Your task to perform on an android device: allow notifications from all sites in the chrome app Image 0: 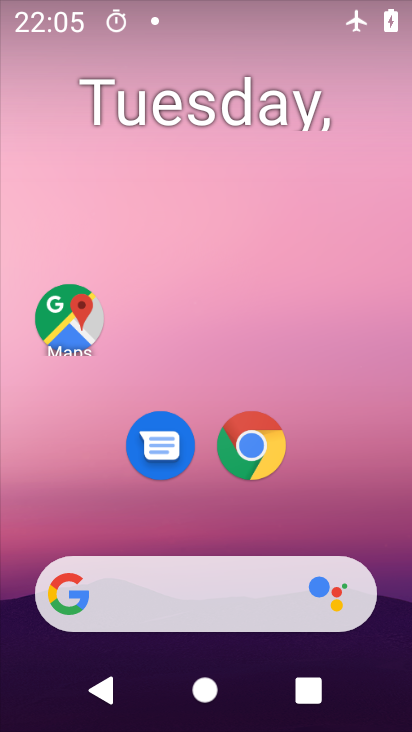
Step 0: click (268, 462)
Your task to perform on an android device: allow notifications from all sites in the chrome app Image 1: 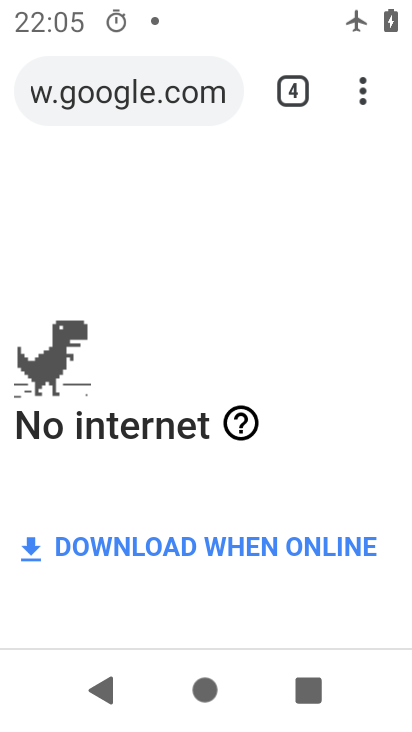
Step 1: click (376, 98)
Your task to perform on an android device: allow notifications from all sites in the chrome app Image 2: 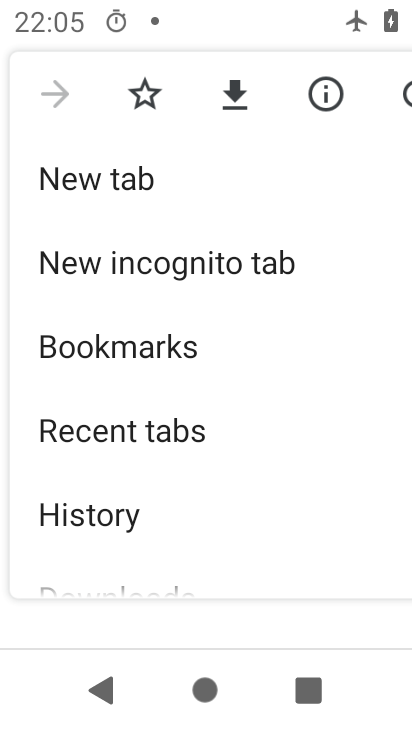
Step 2: drag from (204, 570) to (199, 231)
Your task to perform on an android device: allow notifications from all sites in the chrome app Image 3: 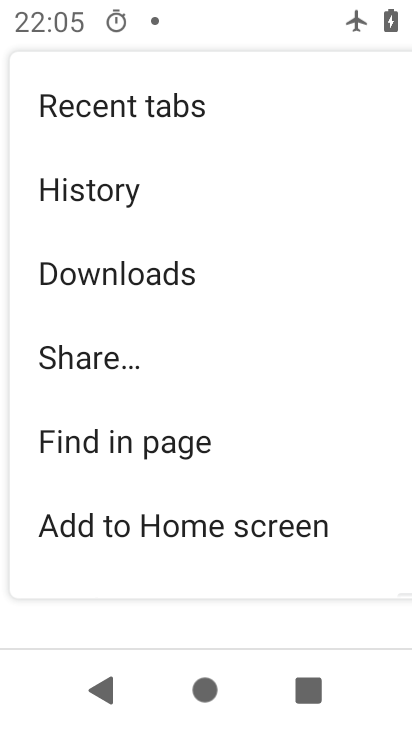
Step 3: drag from (214, 458) to (186, 151)
Your task to perform on an android device: allow notifications from all sites in the chrome app Image 4: 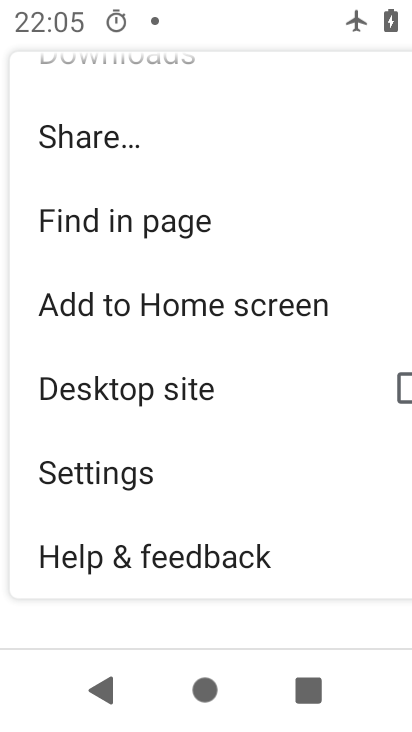
Step 4: click (191, 489)
Your task to perform on an android device: allow notifications from all sites in the chrome app Image 5: 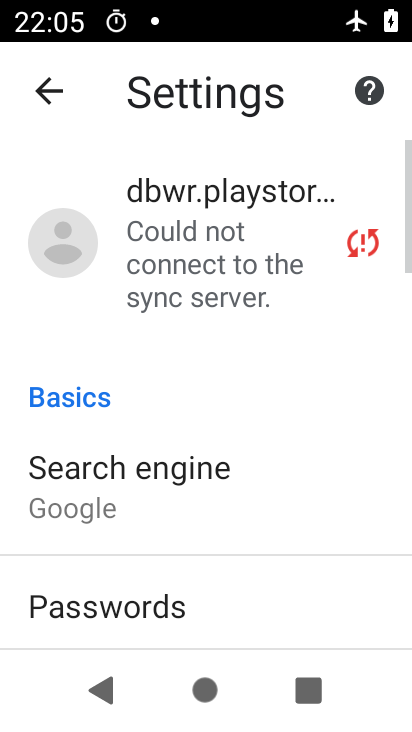
Step 5: drag from (217, 483) to (219, 192)
Your task to perform on an android device: allow notifications from all sites in the chrome app Image 6: 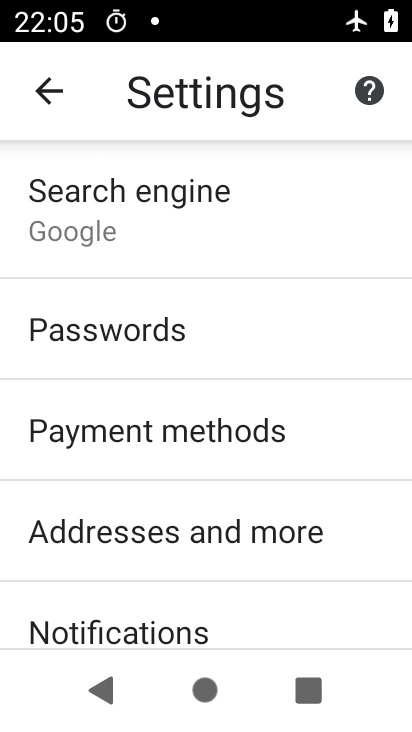
Step 6: drag from (259, 605) to (230, 144)
Your task to perform on an android device: allow notifications from all sites in the chrome app Image 7: 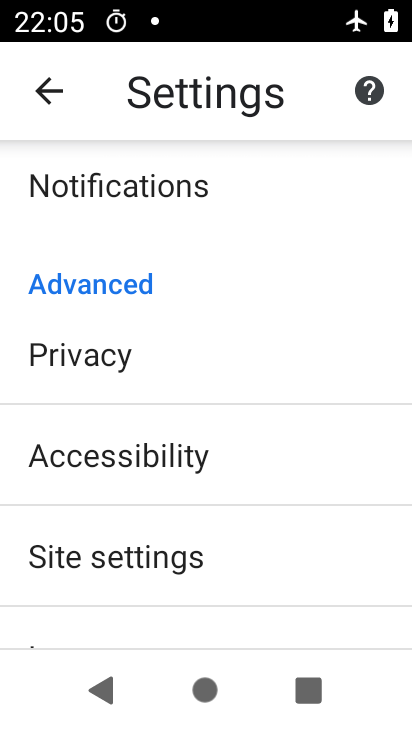
Step 7: click (231, 544)
Your task to perform on an android device: allow notifications from all sites in the chrome app Image 8: 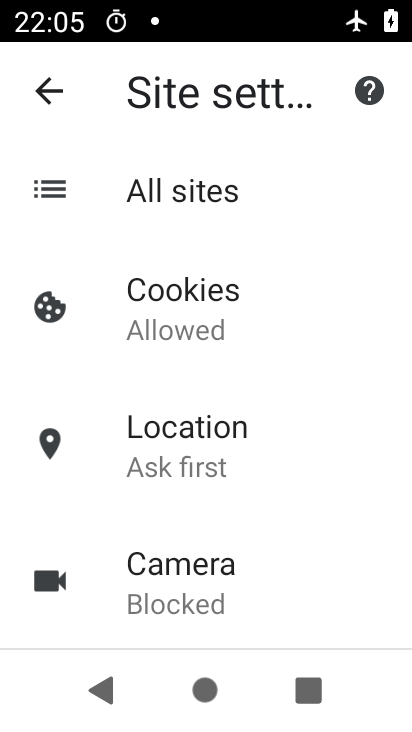
Step 8: drag from (231, 544) to (198, 227)
Your task to perform on an android device: allow notifications from all sites in the chrome app Image 9: 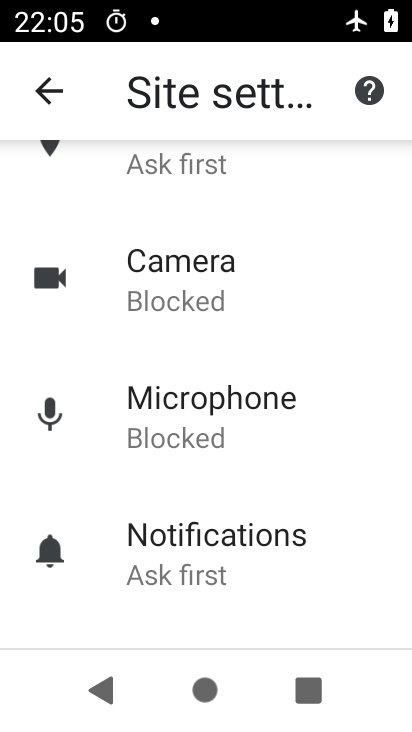
Step 9: drag from (241, 530) to (230, 302)
Your task to perform on an android device: allow notifications from all sites in the chrome app Image 10: 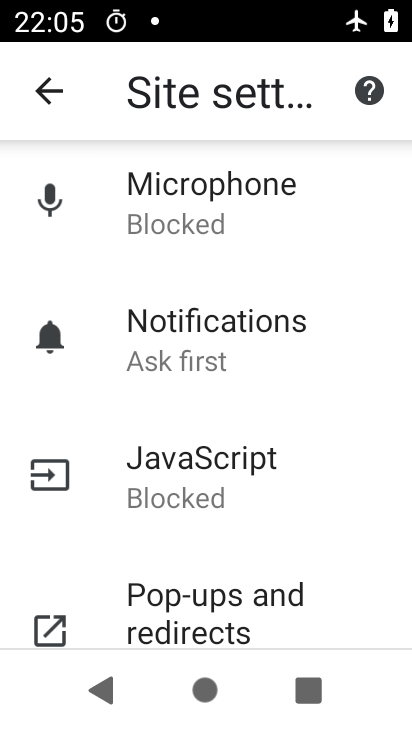
Step 10: click (238, 334)
Your task to perform on an android device: allow notifications from all sites in the chrome app Image 11: 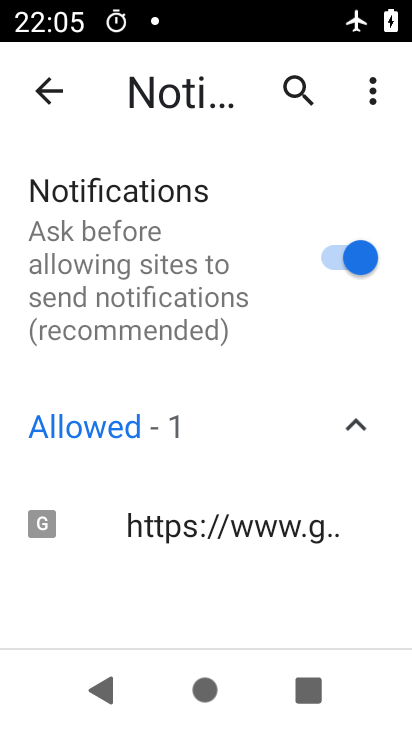
Step 11: task complete